Your task to perform on an android device: see creations saved in the google photos Image 0: 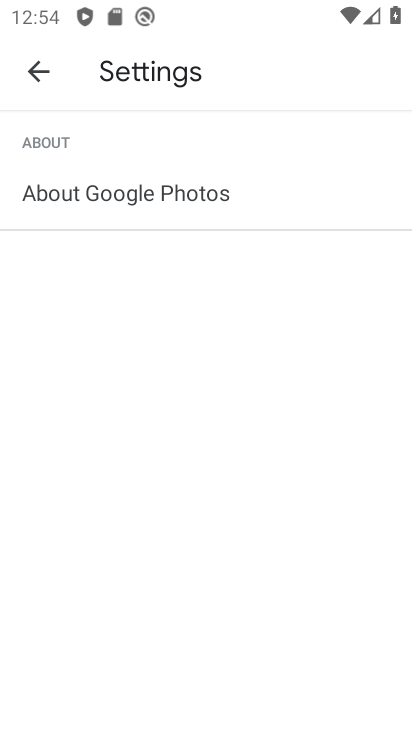
Step 0: press home button
Your task to perform on an android device: see creations saved in the google photos Image 1: 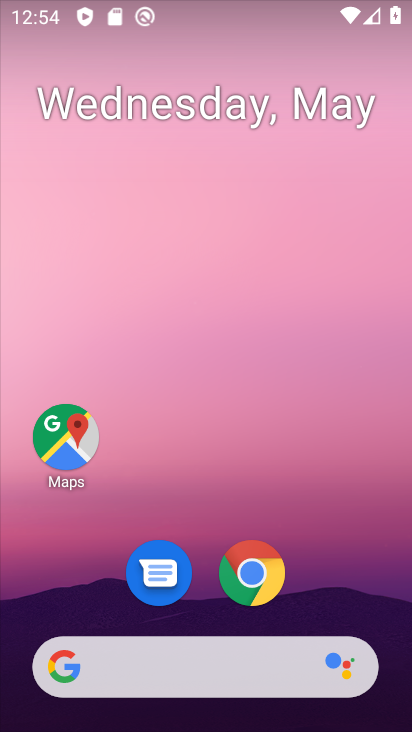
Step 1: drag from (58, 598) to (161, 297)
Your task to perform on an android device: see creations saved in the google photos Image 2: 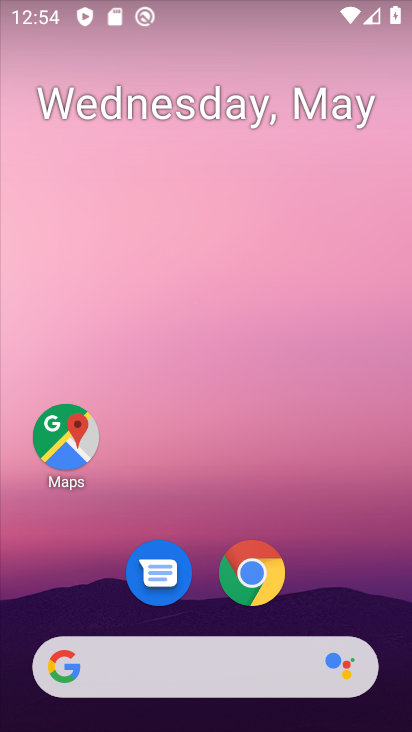
Step 2: drag from (65, 667) to (195, 192)
Your task to perform on an android device: see creations saved in the google photos Image 3: 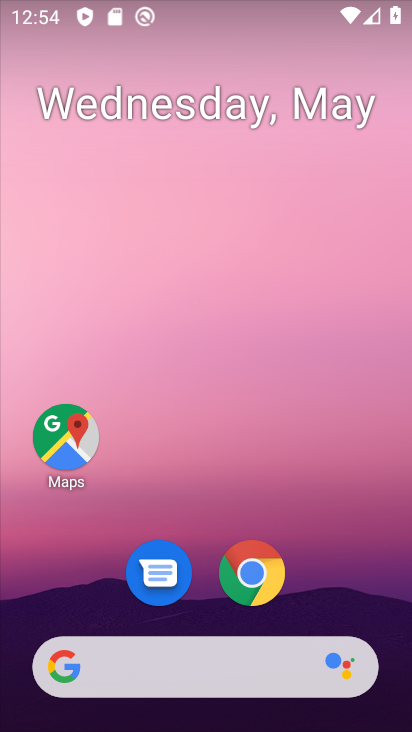
Step 3: drag from (76, 588) to (168, 212)
Your task to perform on an android device: see creations saved in the google photos Image 4: 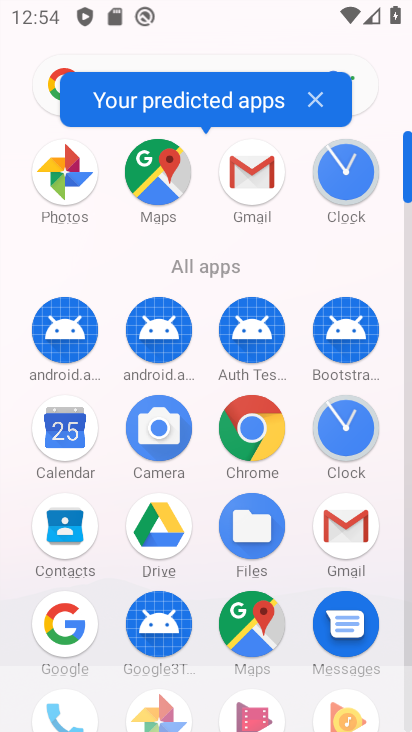
Step 4: drag from (163, 647) to (212, 366)
Your task to perform on an android device: see creations saved in the google photos Image 5: 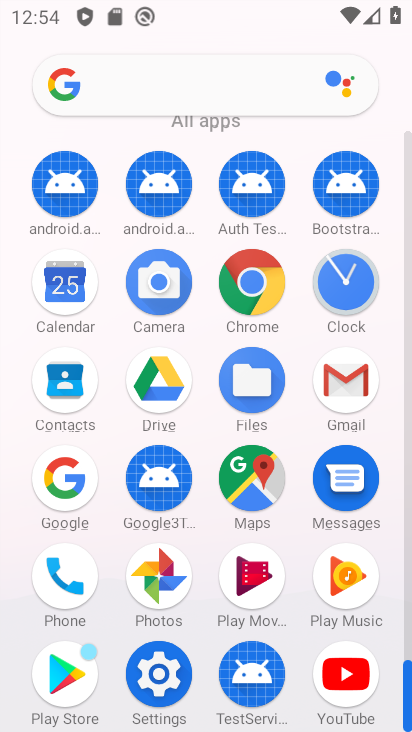
Step 5: click (174, 607)
Your task to perform on an android device: see creations saved in the google photos Image 6: 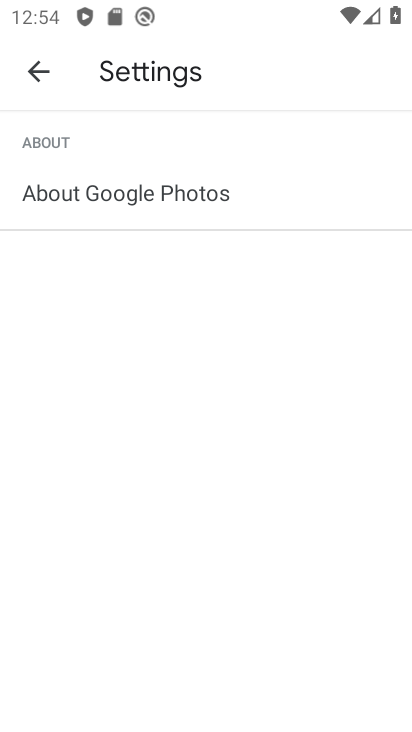
Step 6: click (37, 82)
Your task to perform on an android device: see creations saved in the google photos Image 7: 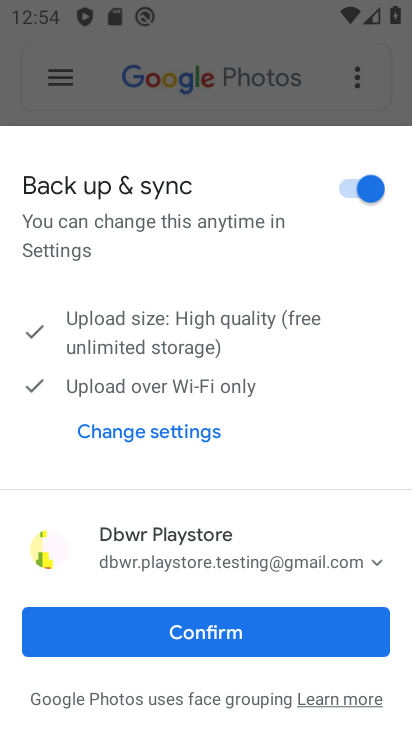
Step 7: click (232, 642)
Your task to perform on an android device: see creations saved in the google photos Image 8: 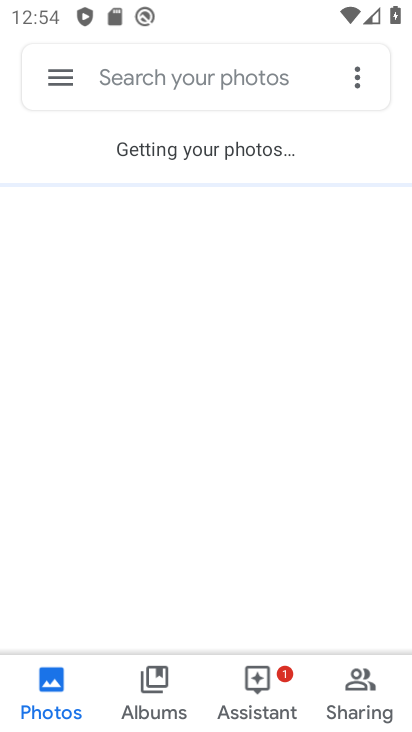
Step 8: click (201, 76)
Your task to perform on an android device: see creations saved in the google photos Image 9: 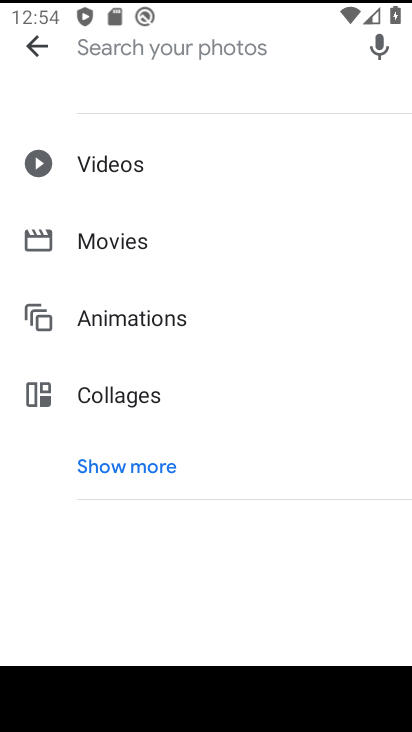
Step 9: click (116, 456)
Your task to perform on an android device: see creations saved in the google photos Image 10: 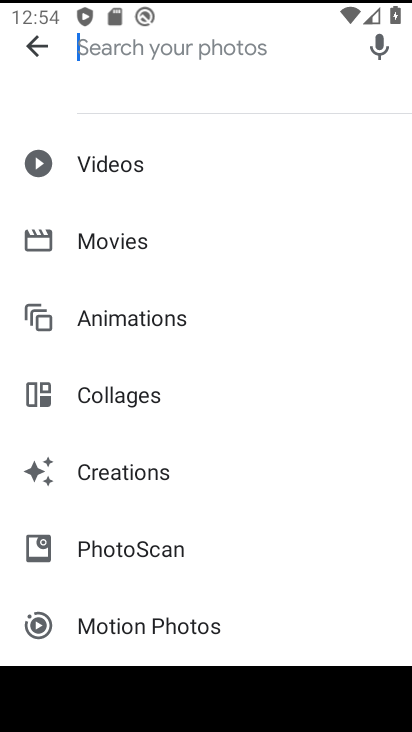
Step 10: click (135, 464)
Your task to perform on an android device: see creations saved in the google photos Image 11: 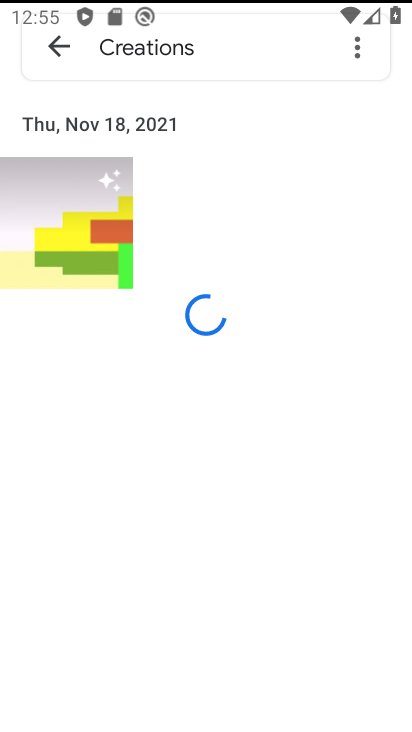
Step 11: task complete